Your task to perform on an android device: Open Maps and search for coffee Image 0: 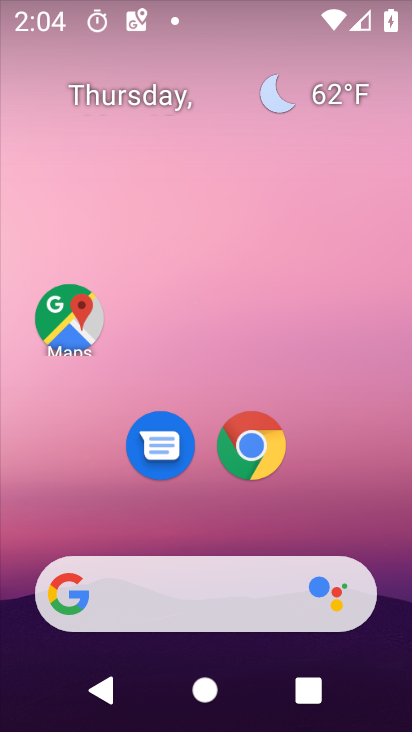
Step 0: click (69, 295)
Your task to perform on an android device: Open Maps and search for coffee Image 1: 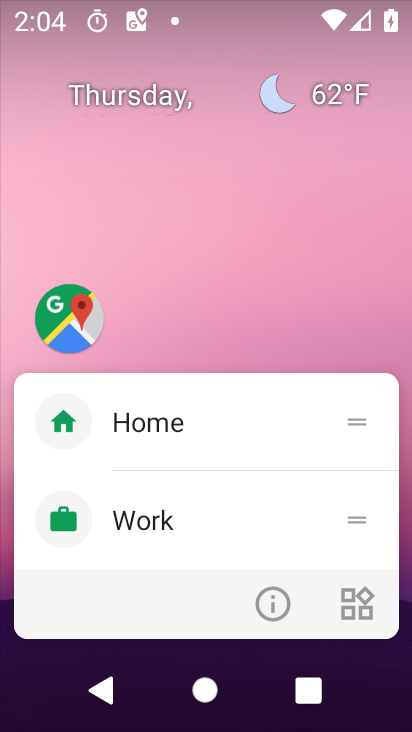
Step 1: click (69, 295)
Your task to perform on an android device: Open Maps and search for coffee Image 2: 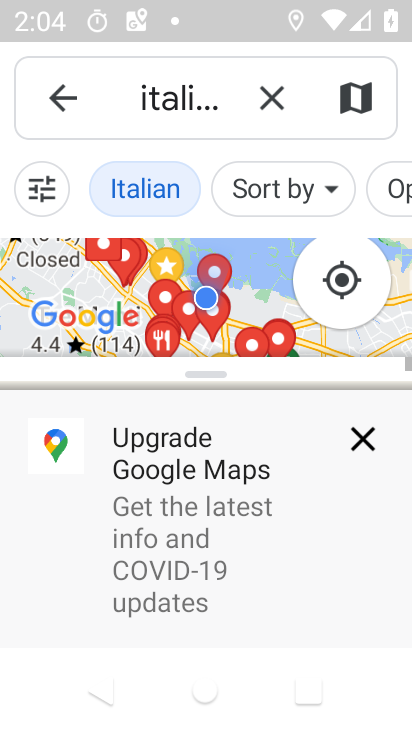
Step 2: click (272, 75)
Your task to perform on an android device: Open Maps and search for coffee Image 3: 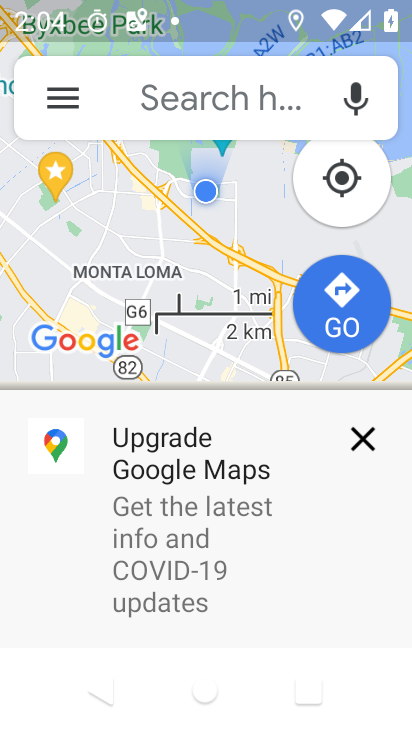
Step 3: click (208, 92)
Your task to perform on an android device: Open Maps and search for coffee Image 4: 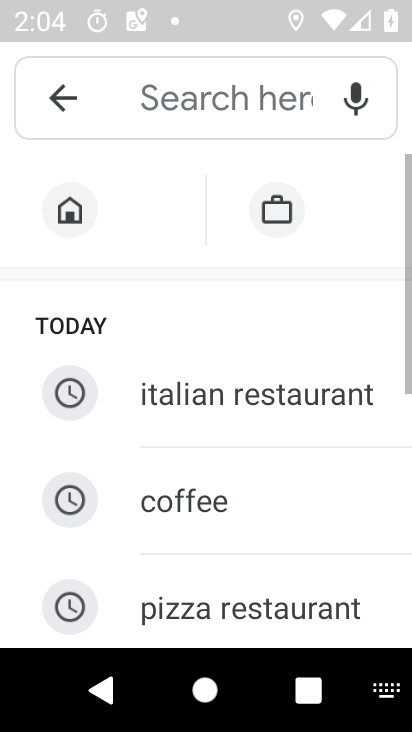
Step 4: click (252, 497)
Your task to perform on an android device: Open Maps and search for coffee Image 5: 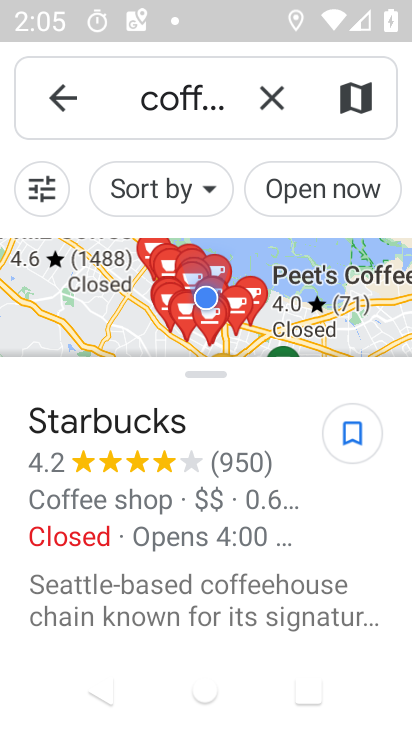
Step 5: task complete